Your task to perform on an android device: see creations saved in the google photos Image 0: 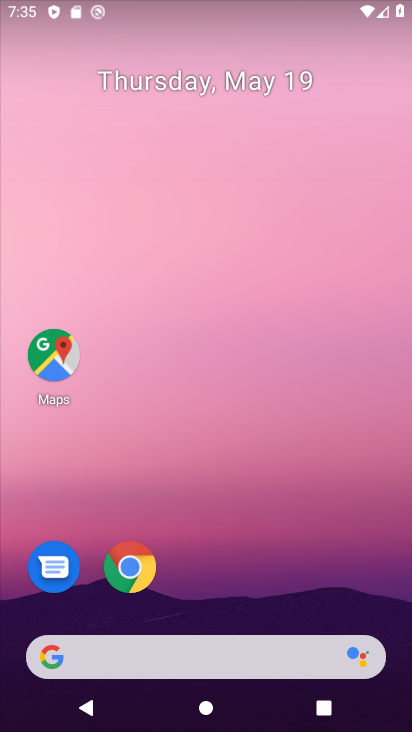
Step 0: drag from (208, 607) to (66, 51)
Your task to perform on an android device: see creations saved in the google photos Image 1: 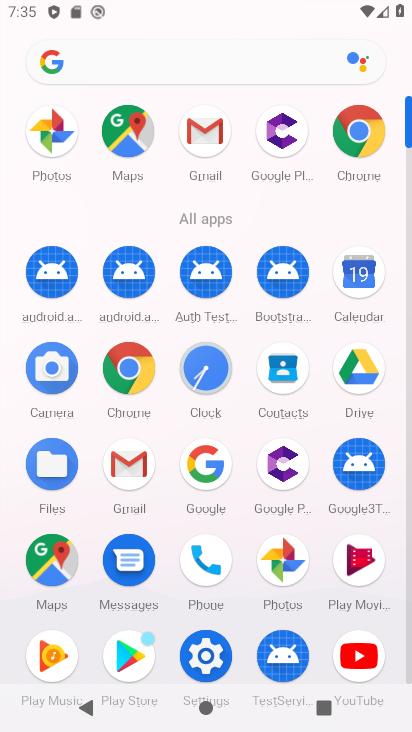
Step 1: click (58, 141)
Your task to perform on an android device: see creations saved in the google photos Image 2: 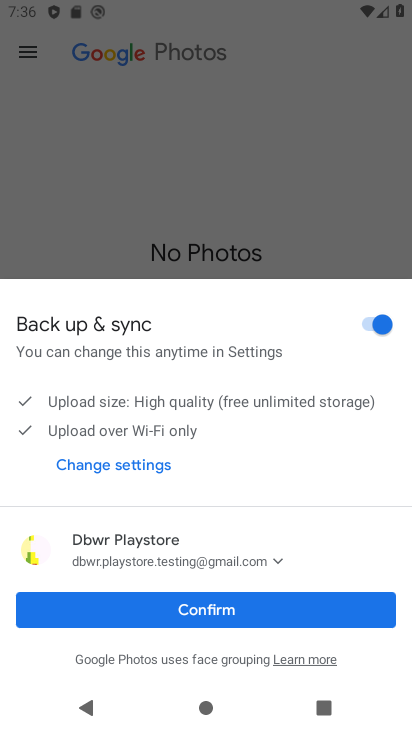
Step 2: click (193, 617)
Your task to perform on an android device: see creations saved in the google photos Image 3: 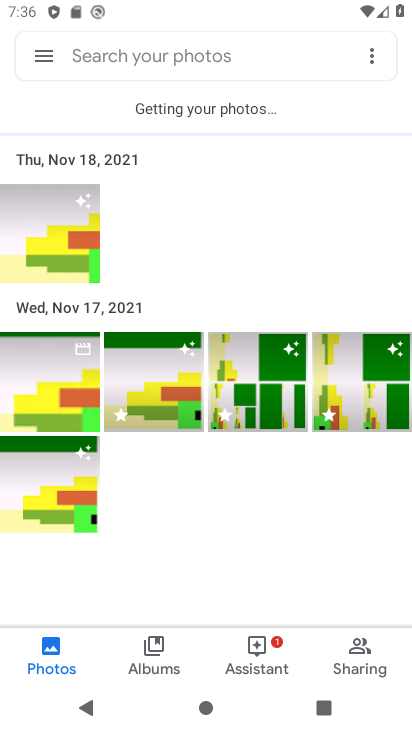
Step 3: click (155, 634)
Your task to perform on an android device: see creations saved in the google photos Image 4: 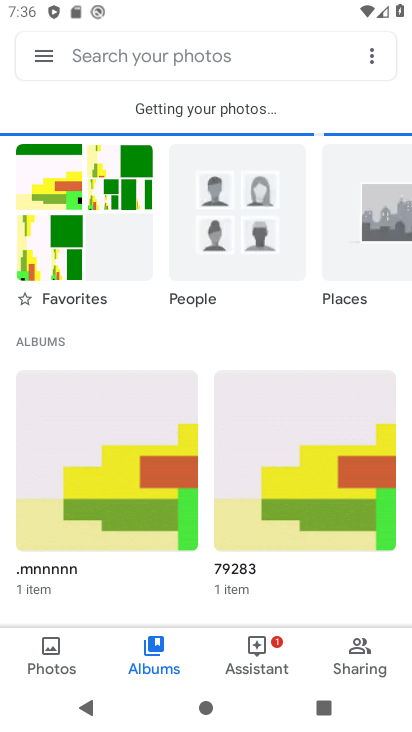
Step 4: click (263, 332)
Your task to perform on an android device: see creations saved in the google photos Image 5: 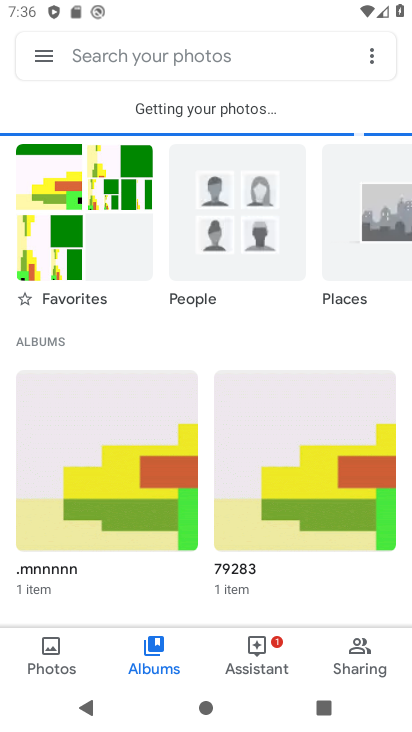
Step 5: task complete